Your task to perform on an android device: Clear the shopping cart on newegg.com. Add macbook pro to the cart on newegg.com, then select checkout. Image 0: 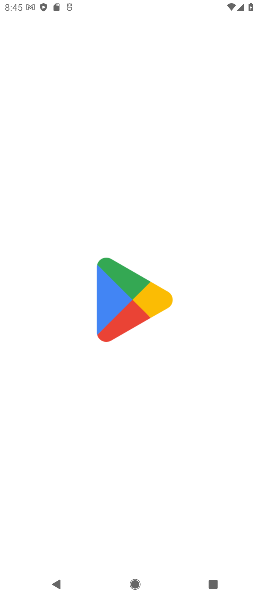
Step 0: press home button
Your task to perform on an android device: Clear the shopping cart on newegg.com. Add macbook pro to the cart on newegg.com, then select checkout. Image 1: 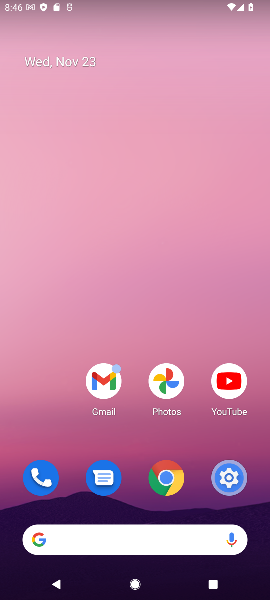
Step 1: click (189, 539)
Your task to perform on an android device: Clear the shopping cart on newegg.com. Add macbook pro to the cart on newegg.com, then select checkout. Image 2: 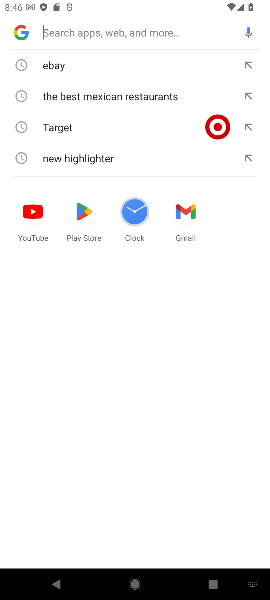
Step 2: type "newegg.com"
Your task to perform on an android device: Clear the shopping cart on newegg.com. Add macbook pro to the cart on newegg.com, then select checkout. Image 3: 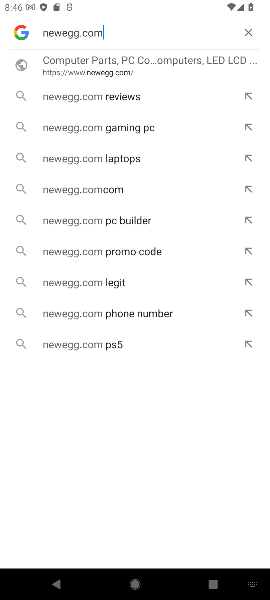
Step 3: click (110, 73)
Your task to perform on an android device: Clear the shopping cart on newegg.com. Add macbook pro to the cart on newegg.com, then select checkout. Image 4: 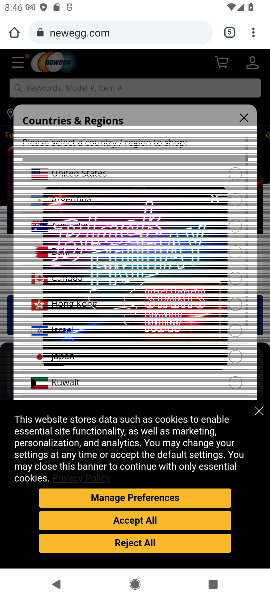
Step 4: click (157, 513)
Your task to perform on an android device: Clear the shopping cart on newegg.com. Add macbook pro to the cart on newegg.com, then select checkout. Image 5: 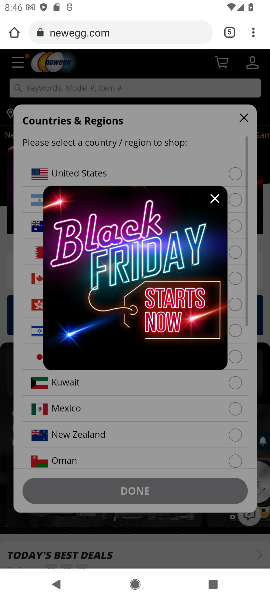
Step 5: click (219, 199)
Your task to perform on an android device: Clear the shopping cart on newegg.com. Add macbook pro to the cart on newegg.com, then select checkout. Image 6: 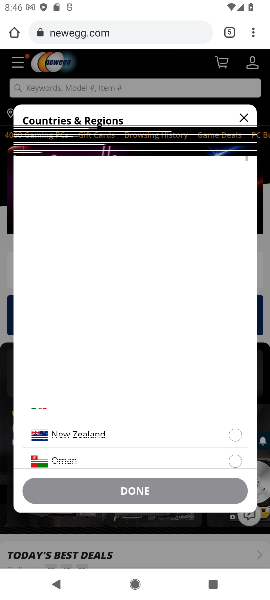
Step 6: click (115, 186)
Your task to perform on an android device: Clear the shopping cart on newegg.com. Add macbook pro to the cart on newegg.com, then select checkout. Image 7: 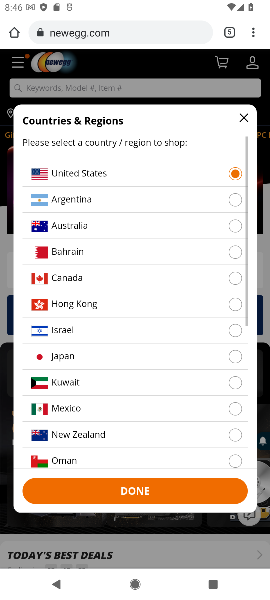
Step 7: click (115, 186)
Your task to perform on an android device: Clear the shopping cart on newegg.com. Add macbook pro to the cart on newegg.com, then select checkout. Image 8: 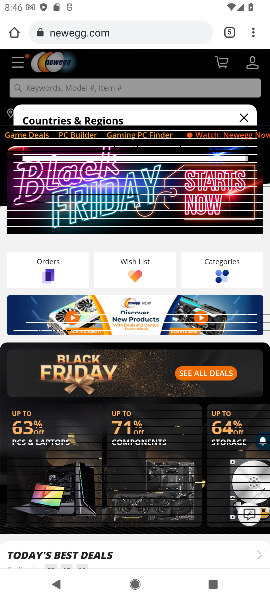
Step 8: click (171, 492)
Your task to perform on an android device: Clear the shopping cart on newegg.com. Add macbook pro to the cart on newegg.com, then select checkout. Image 9: 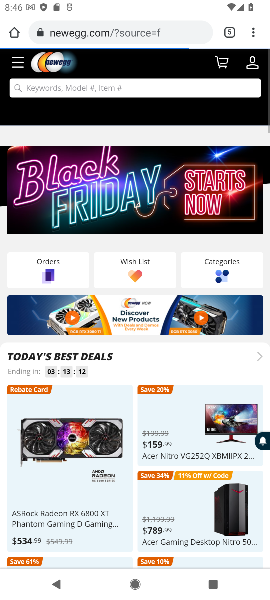
Step 9: task complete